Your task to perform on an android device: turn off notifications in google photos Image 0: 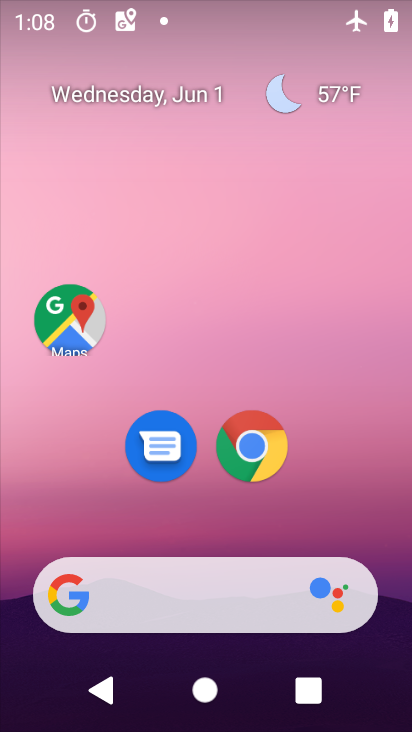
Step 0: drag from (210, 510) to (208, 109)
Your task to perform on an android device: turn off notifications in google photos Image 1: 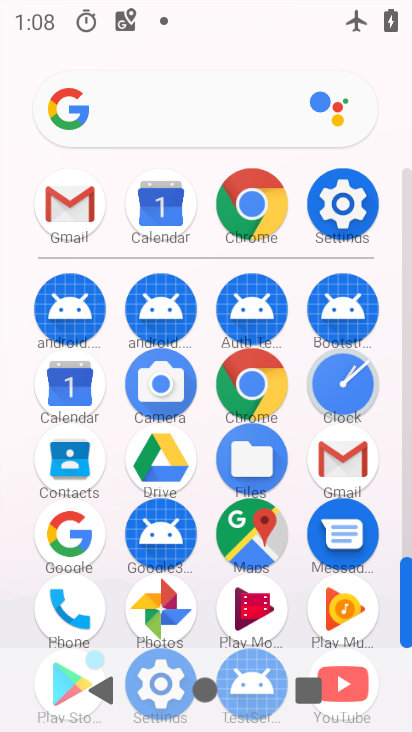
Step 1: drag from (208, 229) to (193, 101)
Your task to perform on an android device: turn off notifications in google photos Image 2: 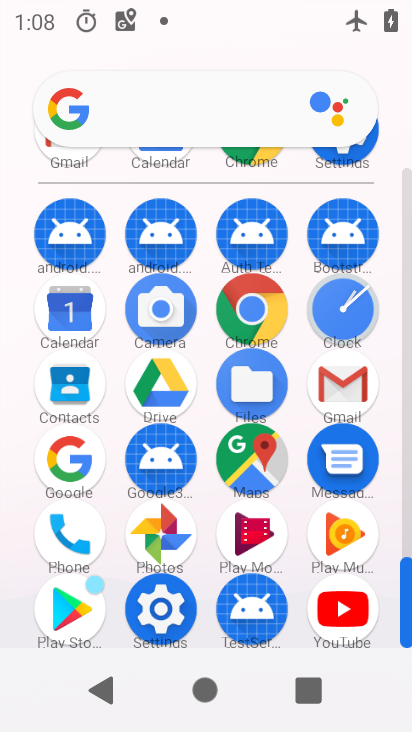
Step 2: click (172, 546)
Your task to perform on an android device: turn off notifications in google photos Image 3: 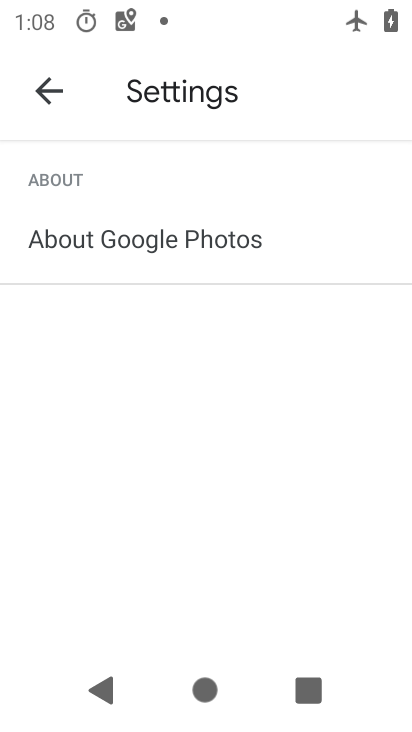
Step 3: press back button
Your task to perform on an android device: turn off notifications in google photos Image 4: 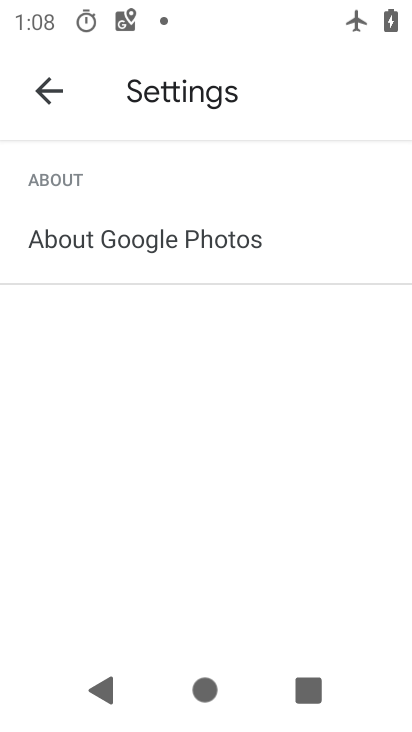
Step 4: press back button
Your task to perform on an android device: turn off notifications in google photos Image 5: 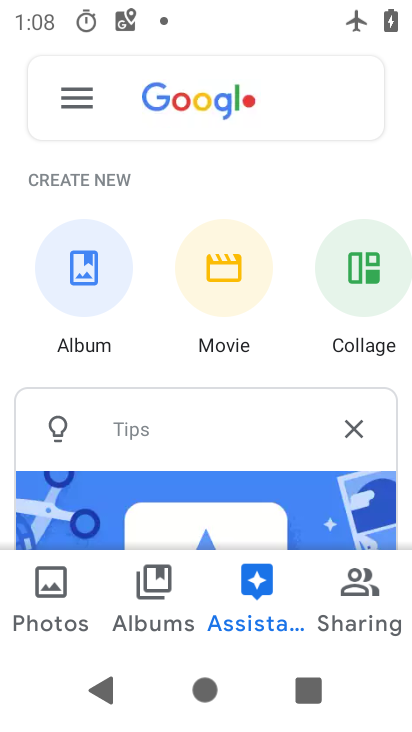
Step 5: click (74, 103)
Your task to perform on an android device: turn off notifications in google photos Image 6: 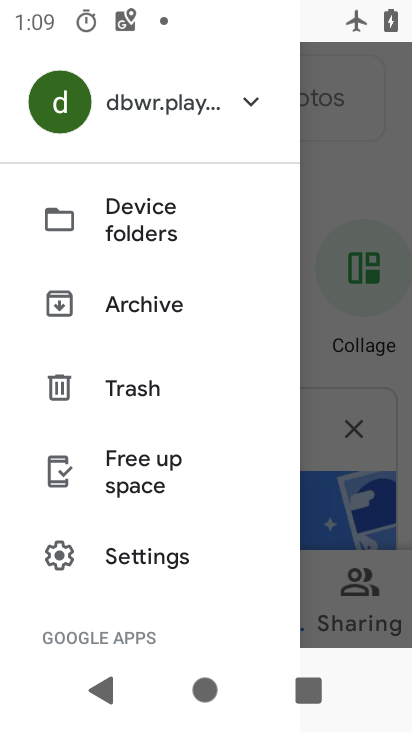
Step 6: click (149, 564)
Your task to perform on an android device: turn off notifications in google photos Image 7: 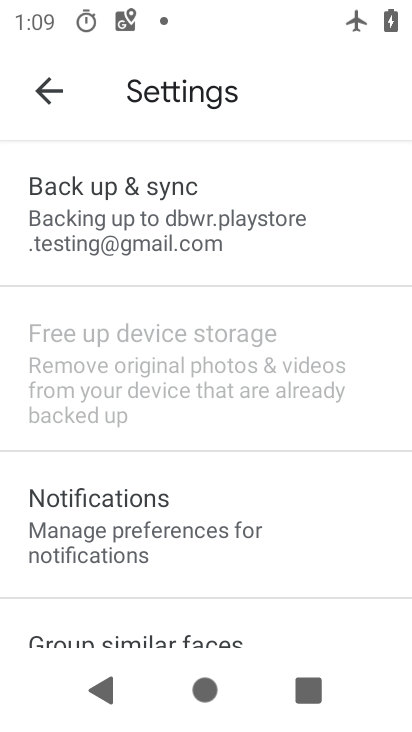
Step 7: click (256, 515)
Your task to perform on an android device: turn off notifications in google photos Image 8: 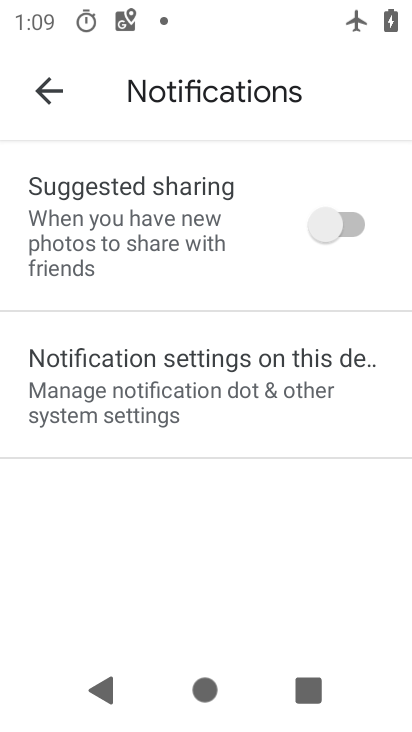
Step 8: click (274, 392)
Your task to perform on an android device: turn off notifications in google photos Image 9: 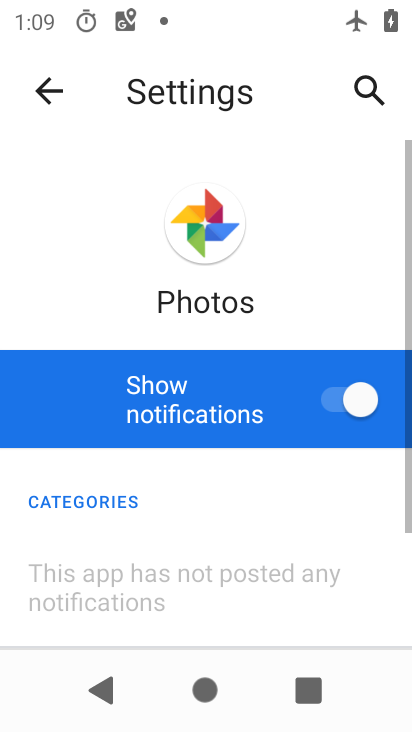
Step 9: click (335, 412)
Your task to perform on an android device: turn off notifications in google photos Image 10: 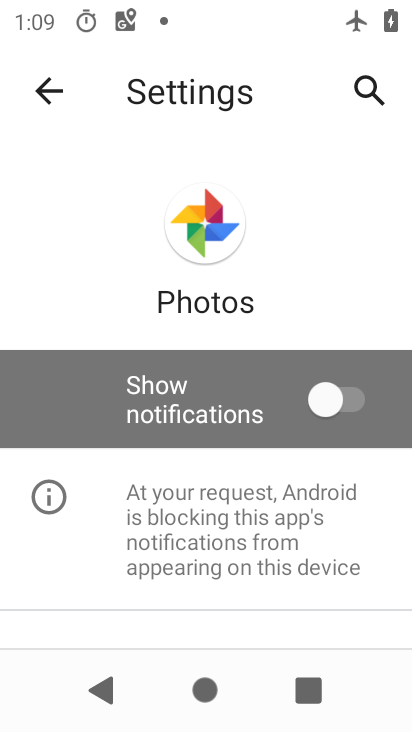
Step 10: task complete